Your task to perform on an android device: find which apps use the phone's location Image 0: 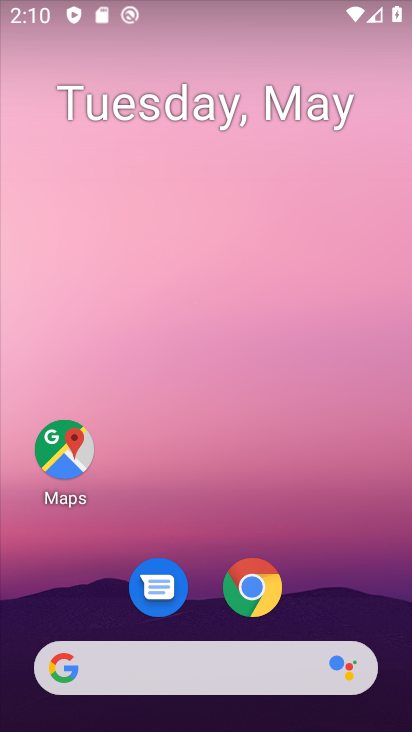
Step 0: drag from (216, 474) to (222, 29)
Your task to perform on an android device: find which apps use the phone's location Image 1: 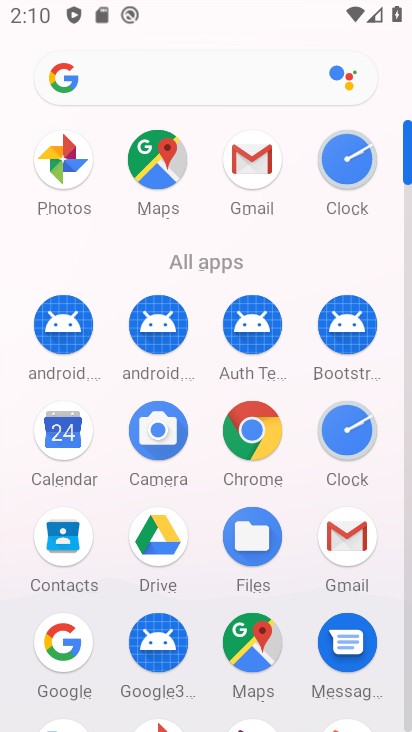
Step 1: drag from (209, 571) to (203, 262)
Your task to perform on an android device: find which apps use the phone's location Image 2: 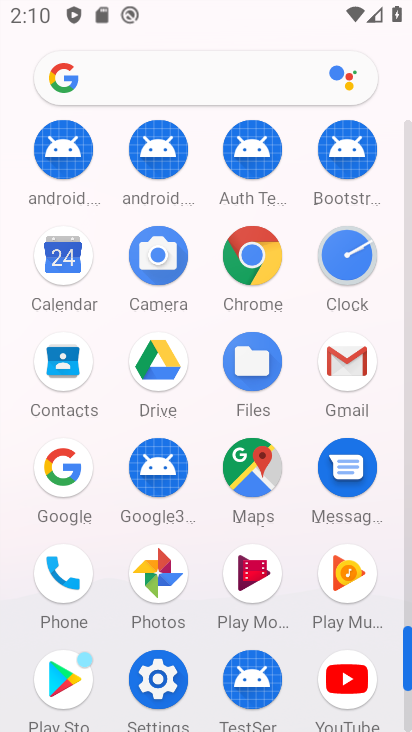
Step 2: click (152, 663)
Your task to perform on an android device: find which apps use the phone's location Image 3: 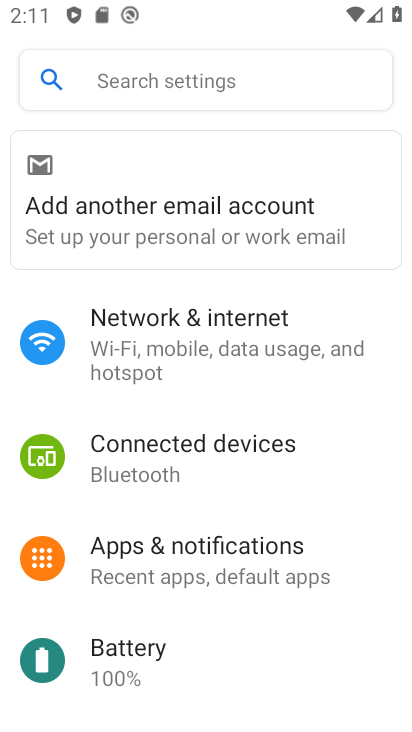
Step 3: drag from (158, 621) to (161, 235)
Your task to perform on an android device: find which apps use the phone's location Image 4: 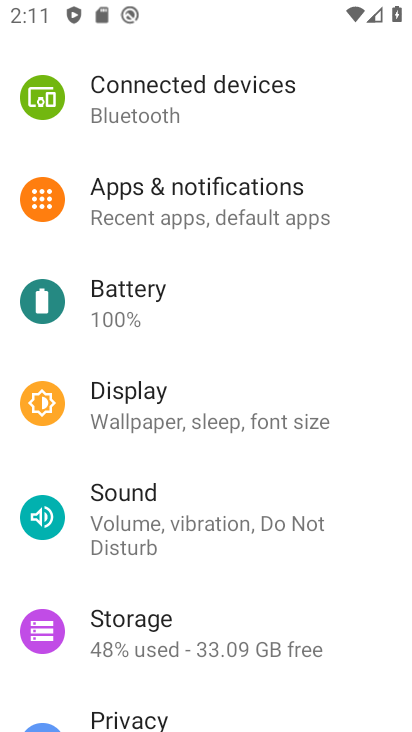
Step 4: drag from (84, 572) to (144, 204)
Your task to perform on an android device: find which apps use the phone's location Image 5: 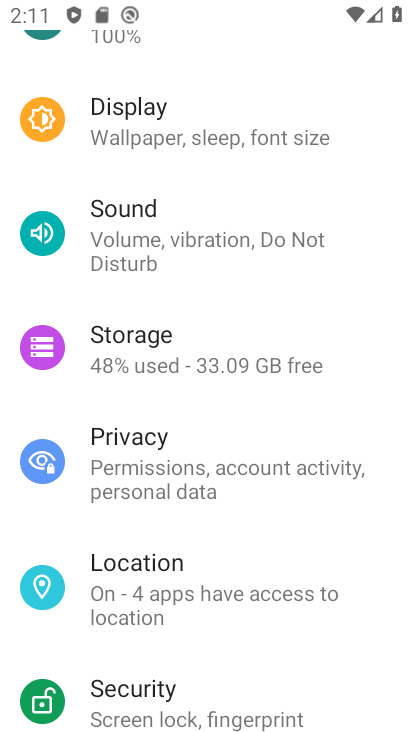
Step 5: click (159, 617)
Your task to perform on an android device: find which apps use the phone's location Image 6: 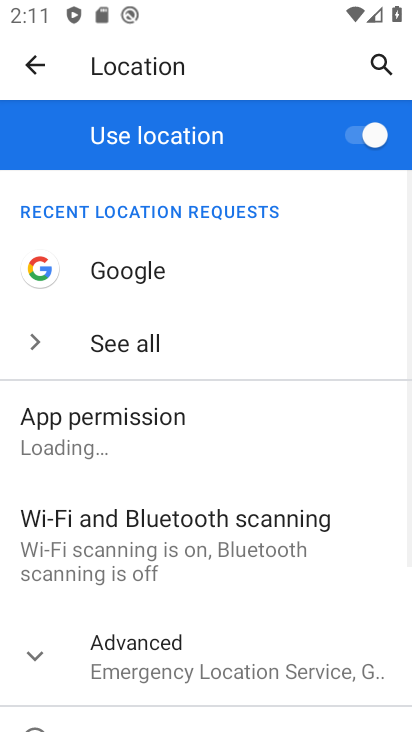
Step 6: click (123, 355)
Your task to perform on an android device: find which apps use the phone's location Image 7: 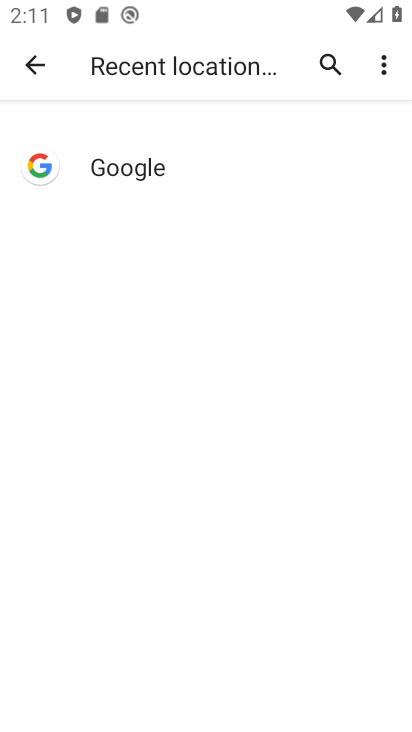
Step 7: task complete